Your task to perform on an android device: uninstall "Google News" Image 0: 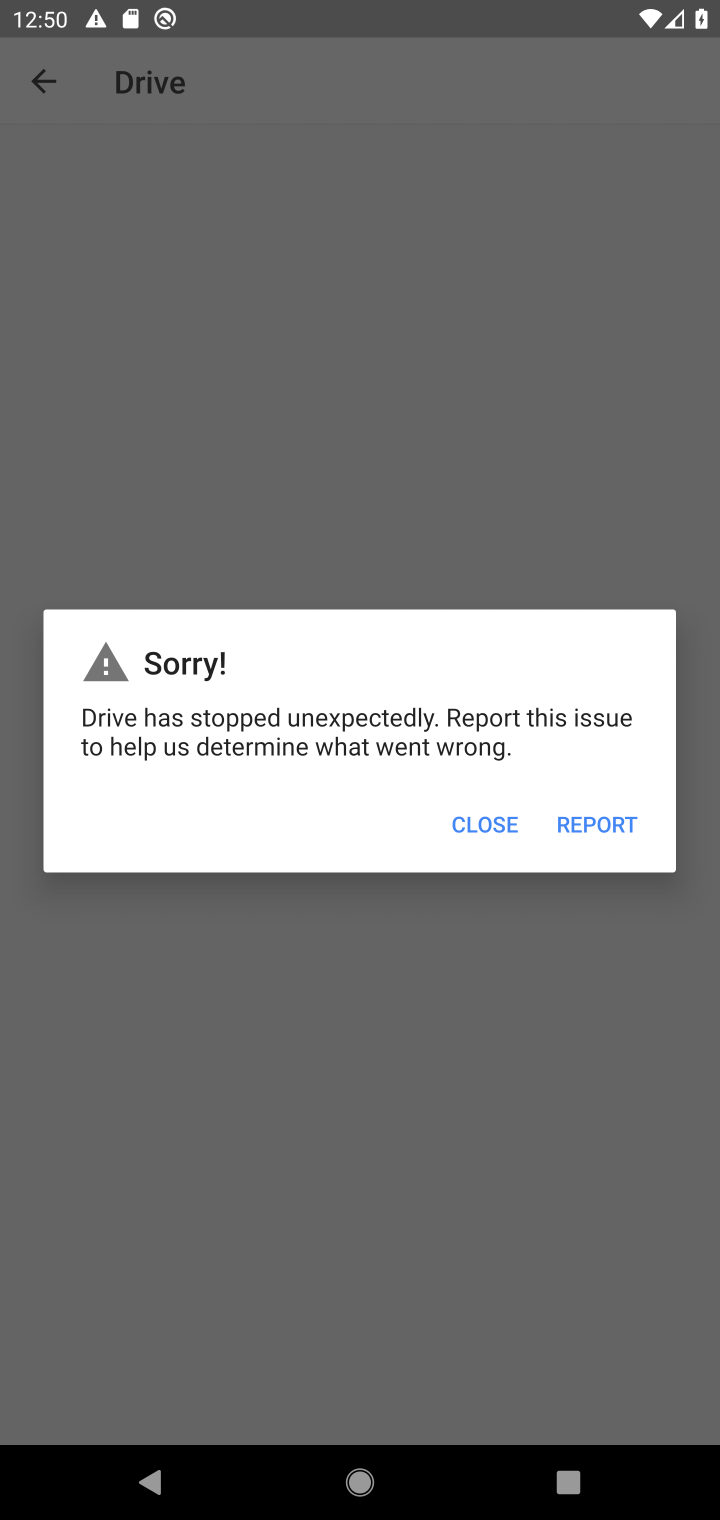
Step 0: press home button
Your task to perform on an android device: uninstall "Google News" Image 1: 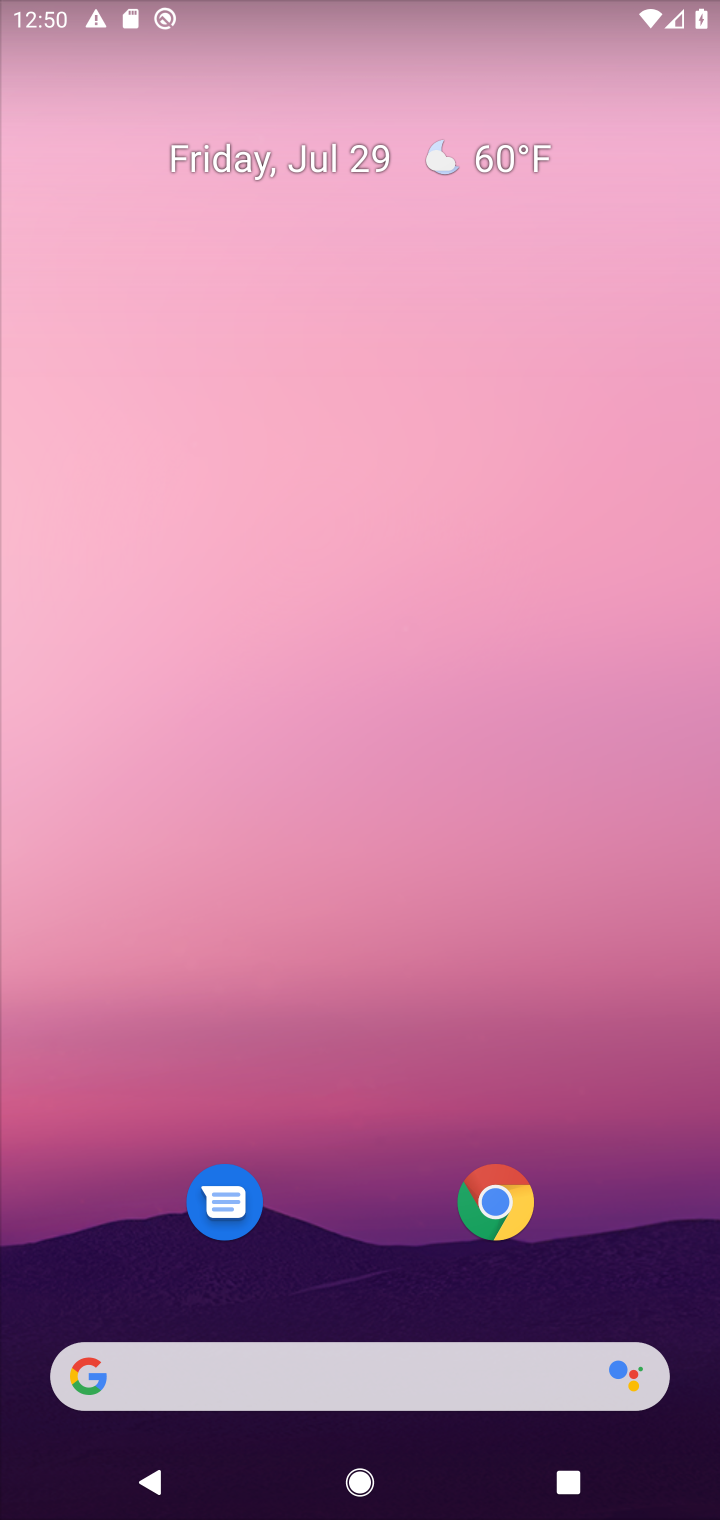
Step 1: click (413, 1372)
Your task to perform on an android device: uninstall "Google News" Image 2: 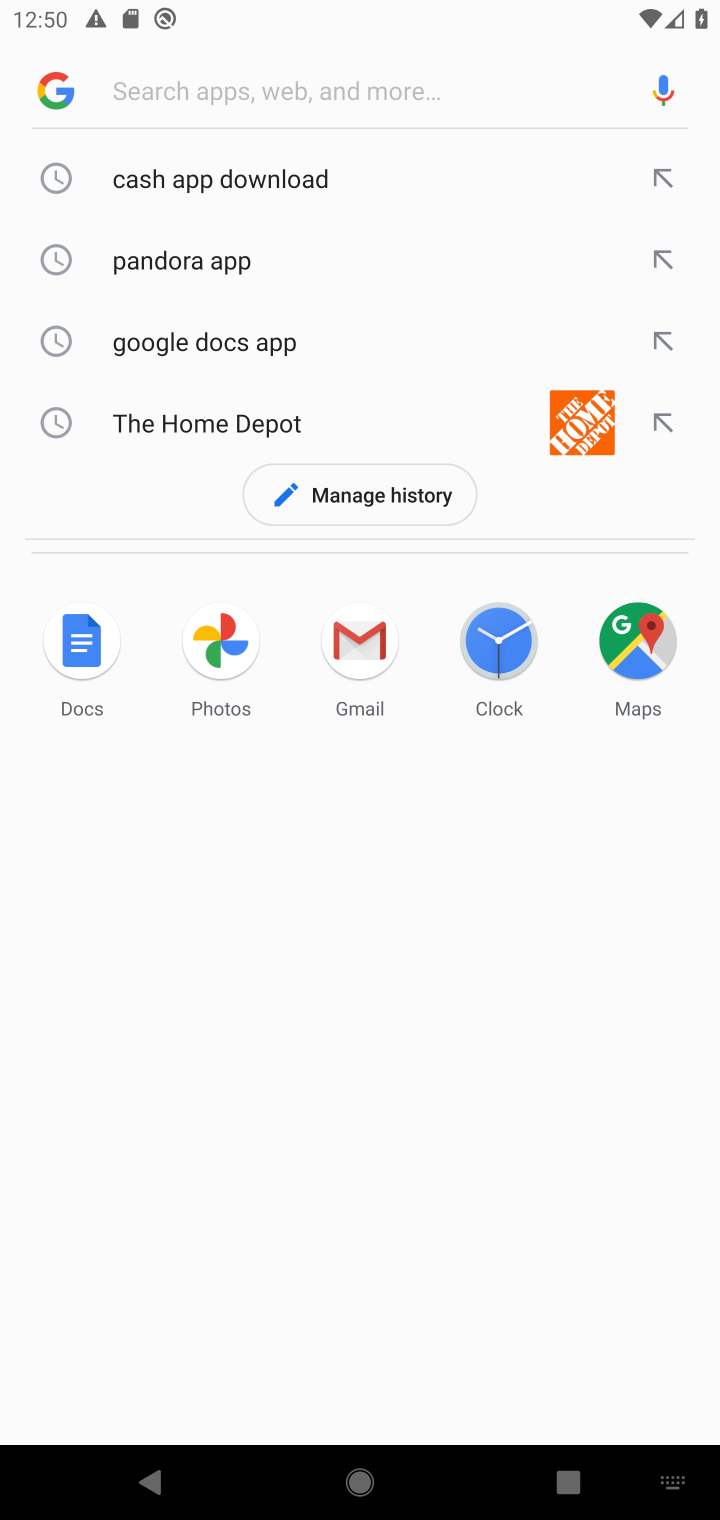
Step 2: type "google news"
Your task to perform on an android device: uninstall "Google News" Image 3: 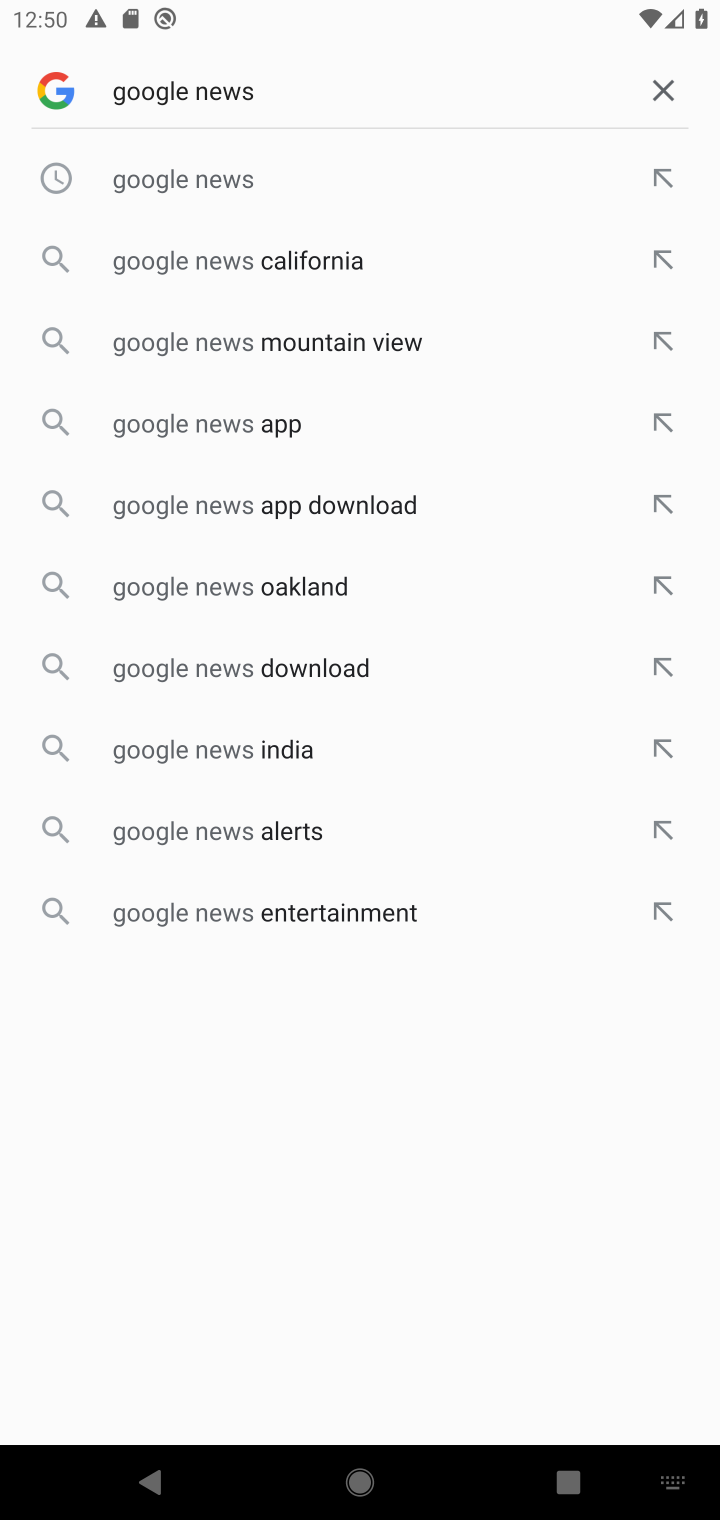
Step 3: click (276, 197)
Your task to perform on an android device: uninstall "Google News" Image 4: 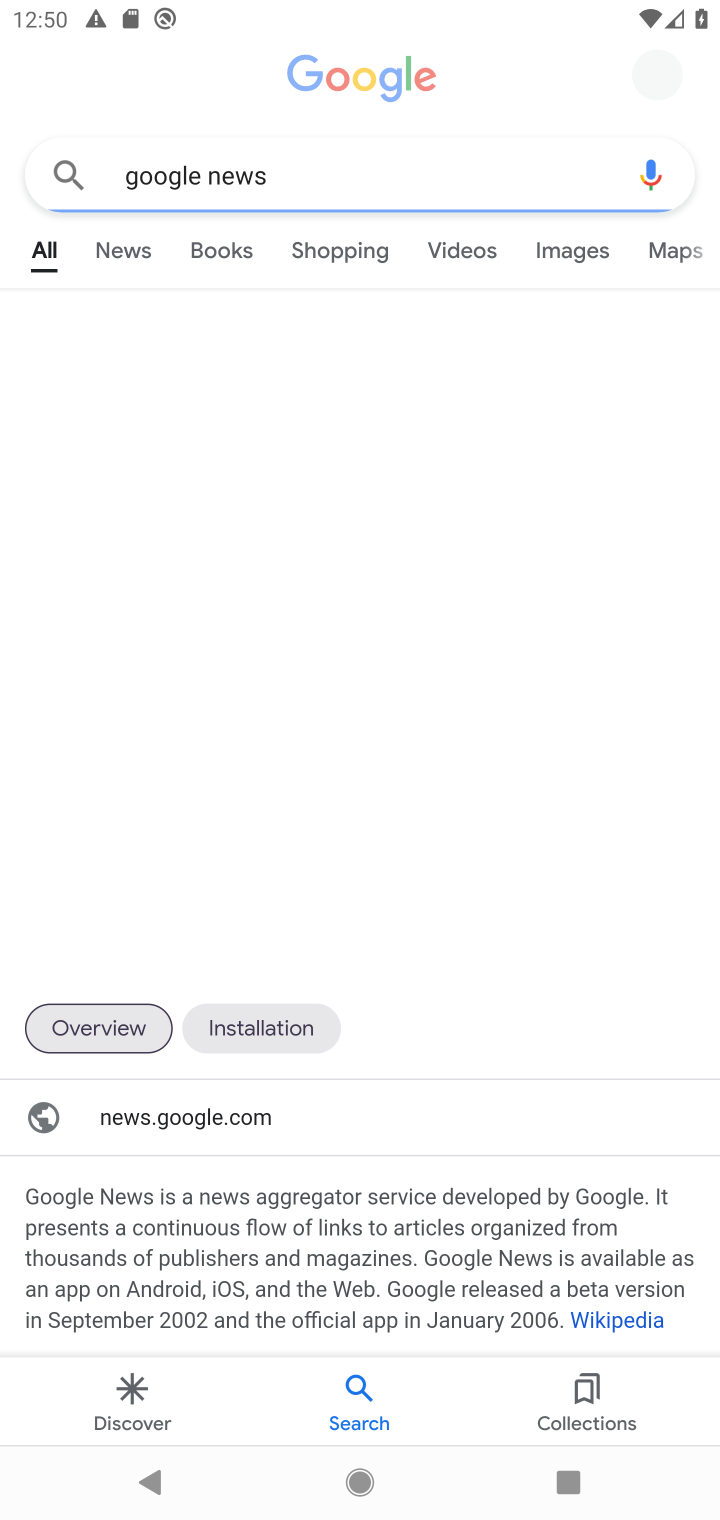
Step 4: task complete